Your task to perform on an android device: open app "Adobe Express: Graphic Design" Image 0: 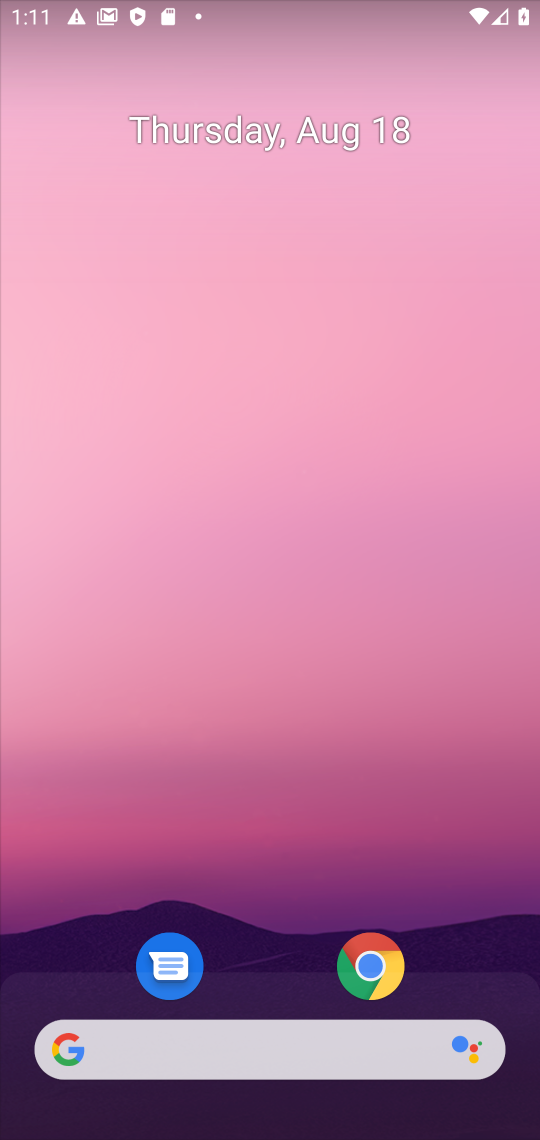
Step 0: drag from (296, 980) to (238, 39)
Your task to perform on an android device: open app "Adobe Express: Graphic Design" Image 1: 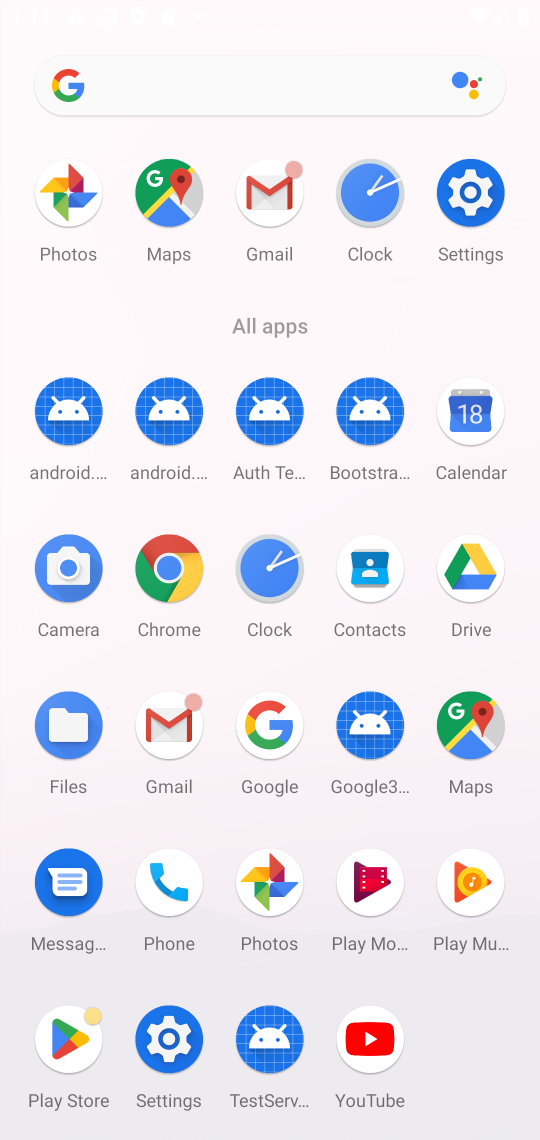
Step 1: click (71, 1008)
Your task to perform on an android device: open app "Adobe Express: Graphic Design" Image 2: 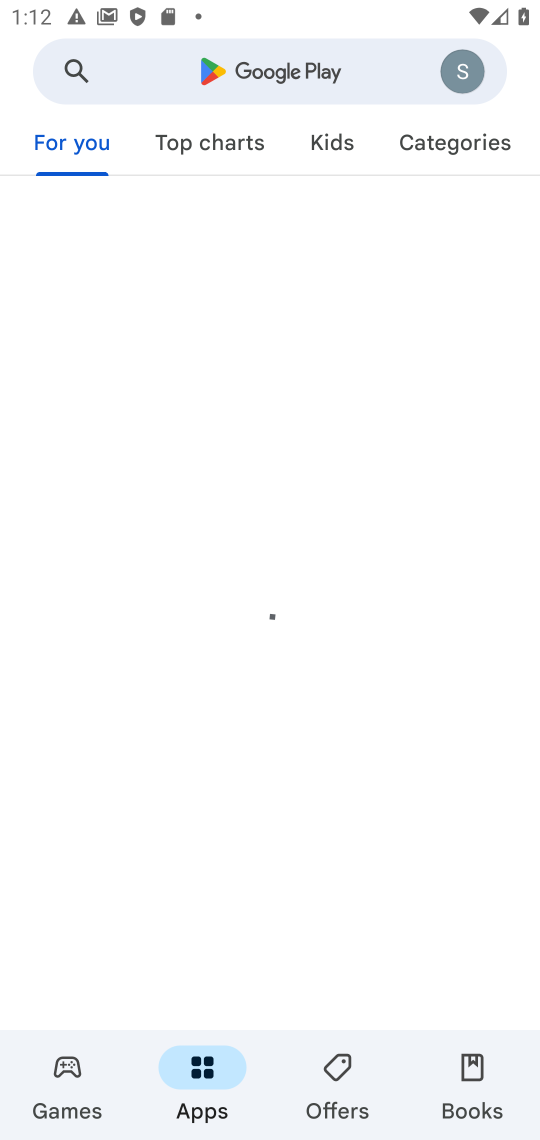
Step 2: click (234, 91)
Your task to perform on an android device: open app "Adobe Express: Graphic Design" Image 3: 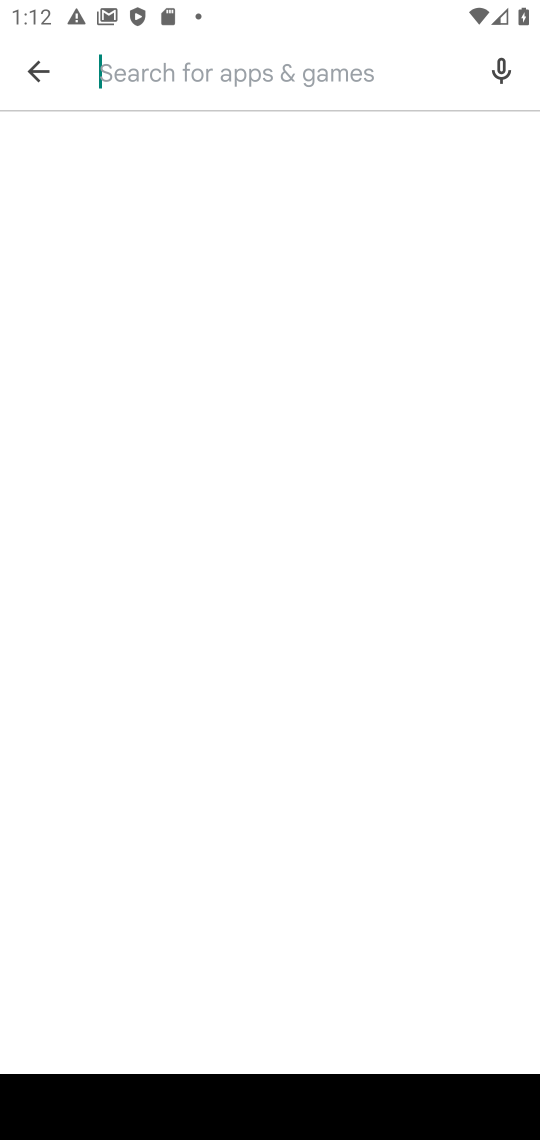
Step 3: type "Adobe Express: Graphic Design"
Your task to perform on an android device: open app "Adobe Express: Graphic Design" Image 4: 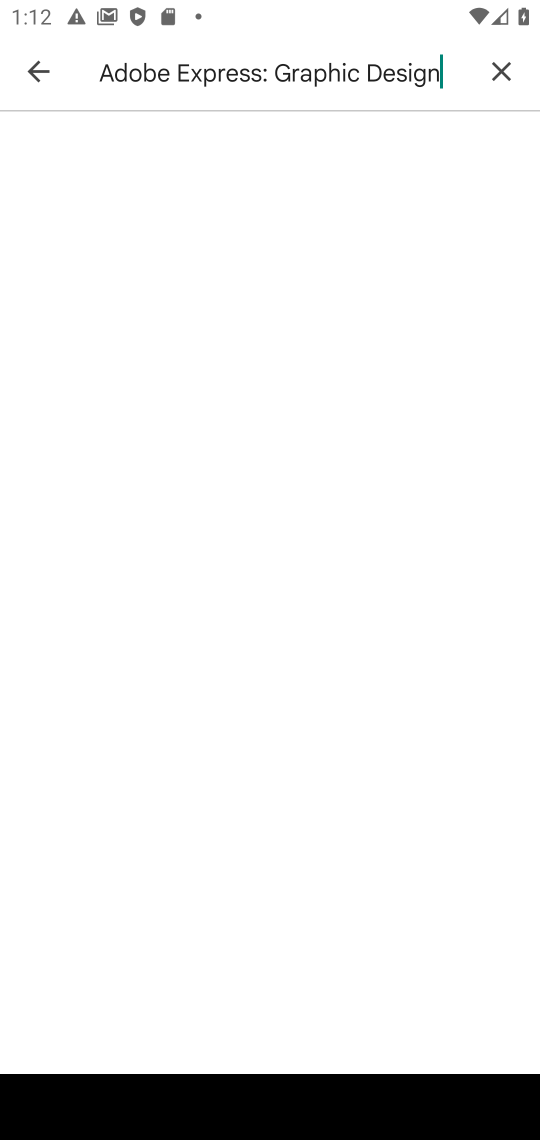
Step 4: type ""
Your task to perform on an android device: open app "Adobe Express: Graphic Design" Image 5: 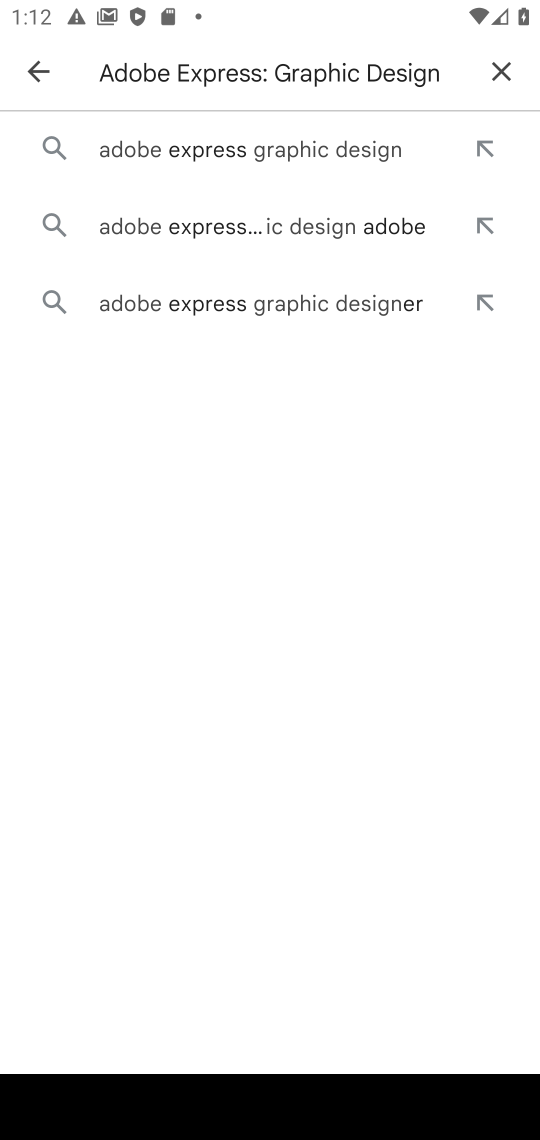
Step 5: click (267, 153)
Your task to perform on an android device: open app "Adobe Express: Graphic Design" Image 6: 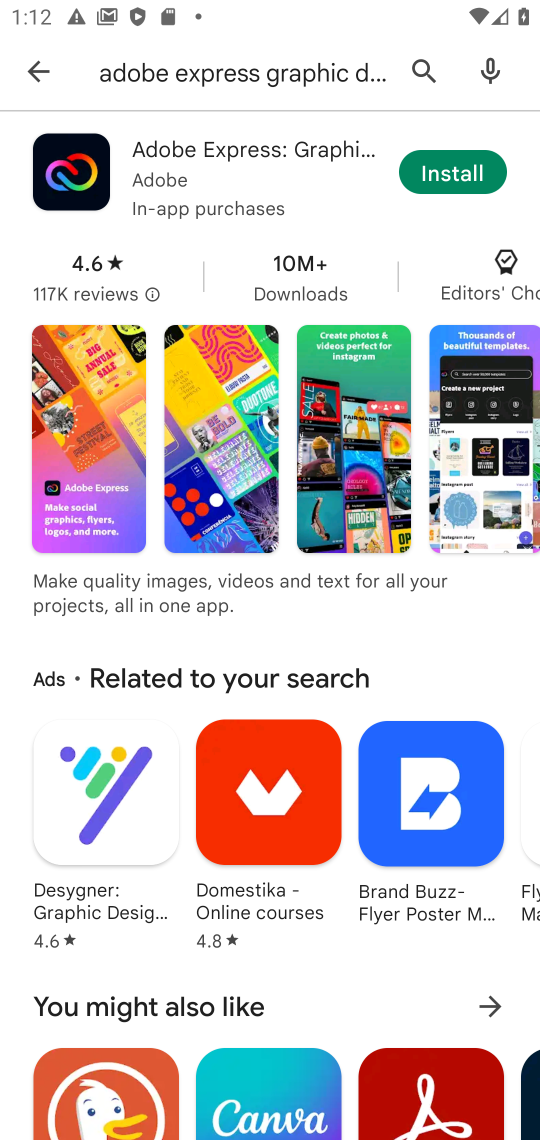
Step 6: click (421, 190)
Your task to perform on an android device: open app "Adobe Express: Graphic Design" Image 7: 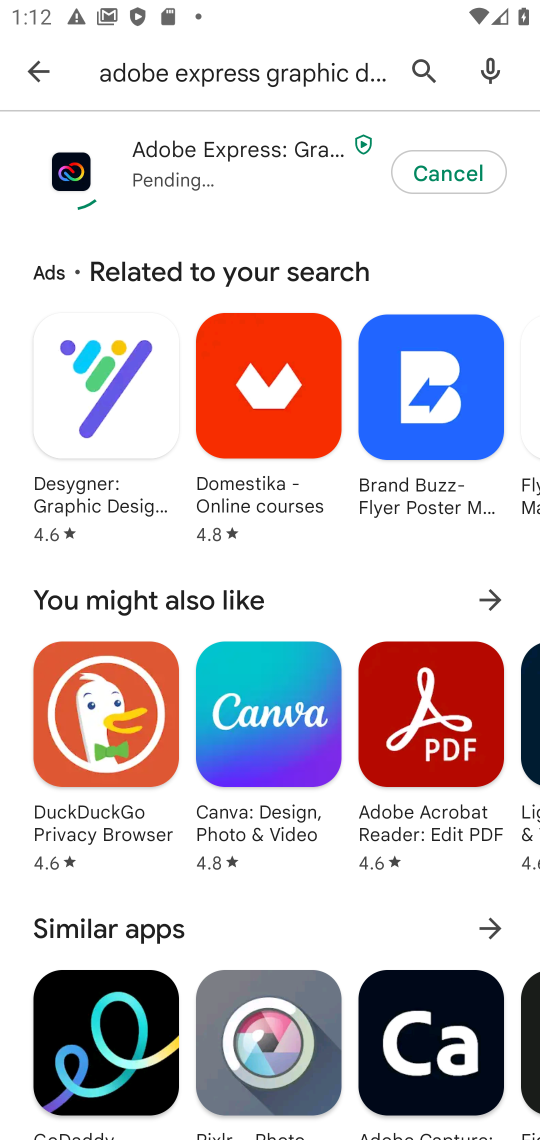
Step 7: click (133, 164)
Your task to perform on an android device: open app "Adobe Express: Graphic Design" Image 8: 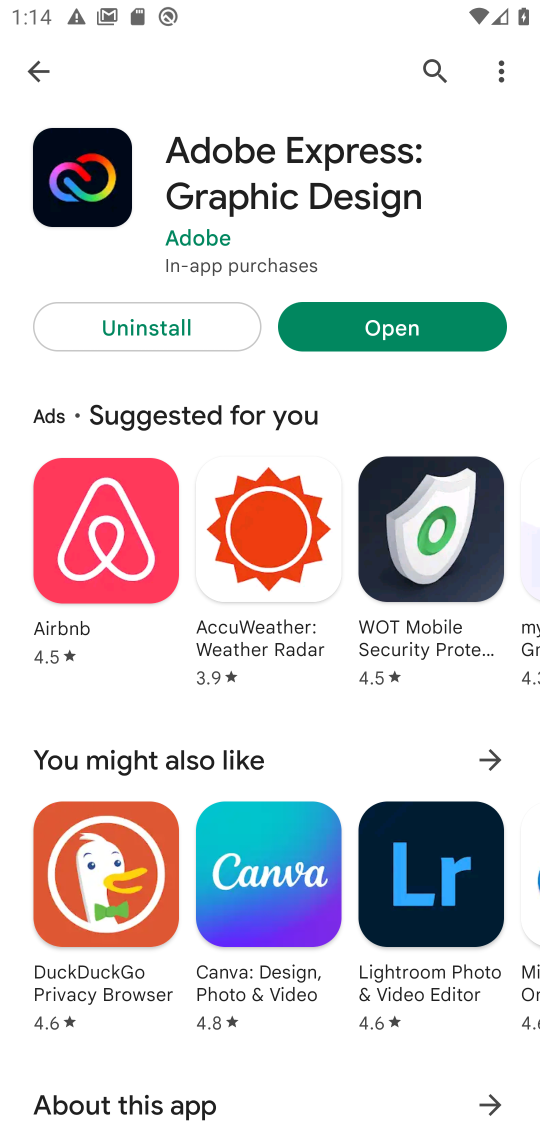
Step 8: click (368, 329)
Your task to perform on an android device: open app "Adobe Express: Graphic Design" Image 9: 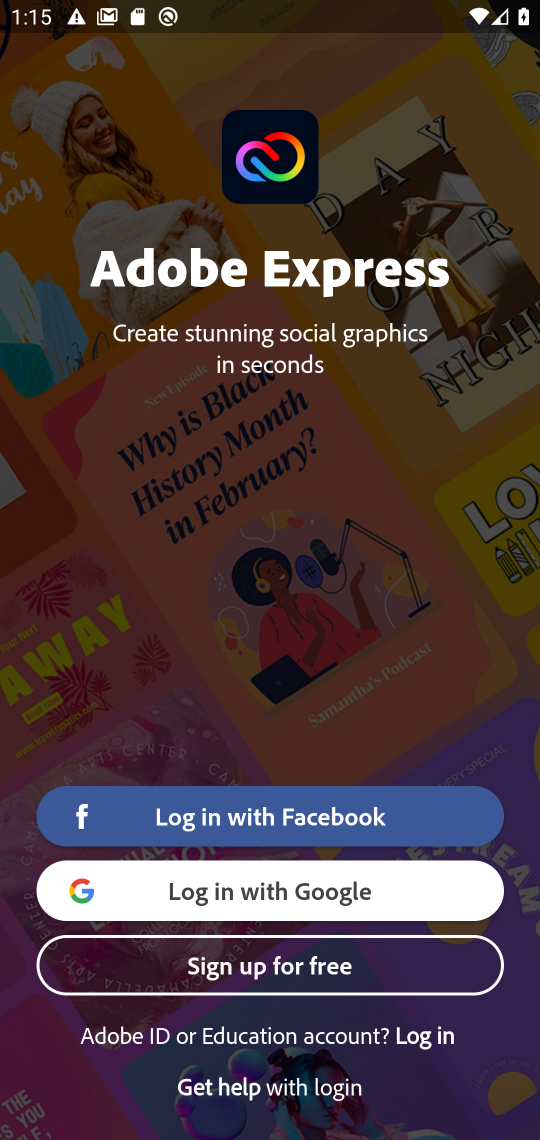
Step 9: task complete